Your task to perform on an android device: allow notifications from all sites in the chrome app Image 0: 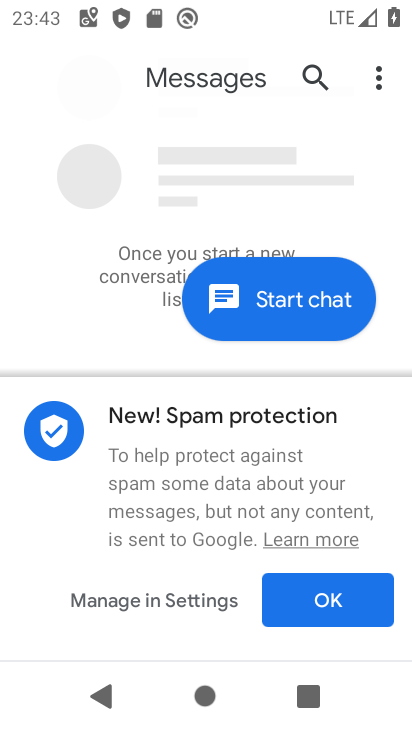
Step 0: press back button
Your task to perform on an android device: allow notifications from all sites in the chrome app Image 1: 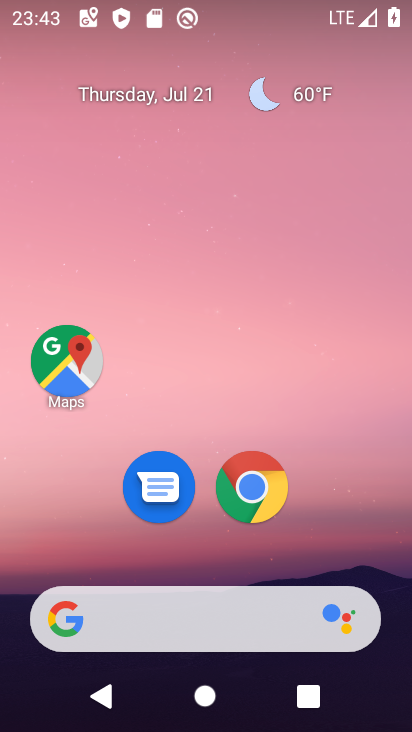
Step 1: click (273, 469)
Your task to perform on an android device: allow notifications from all sites in the chrome app Image 2: 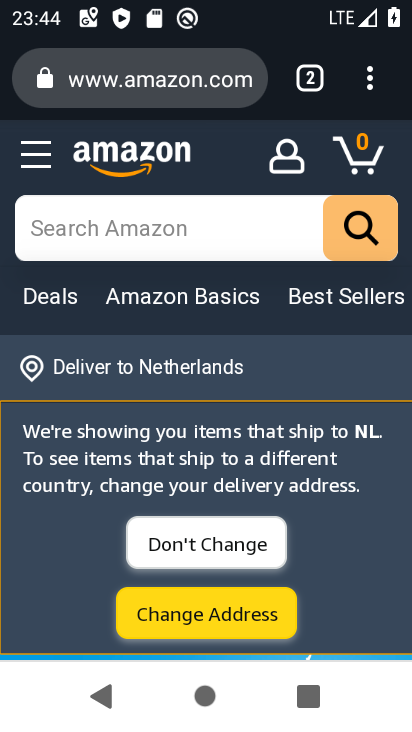
Step 2: drag from (366, 78) to (78, 539)
Your task to perform on an android device: allow notifications from all sites in the chrome app Image 3: 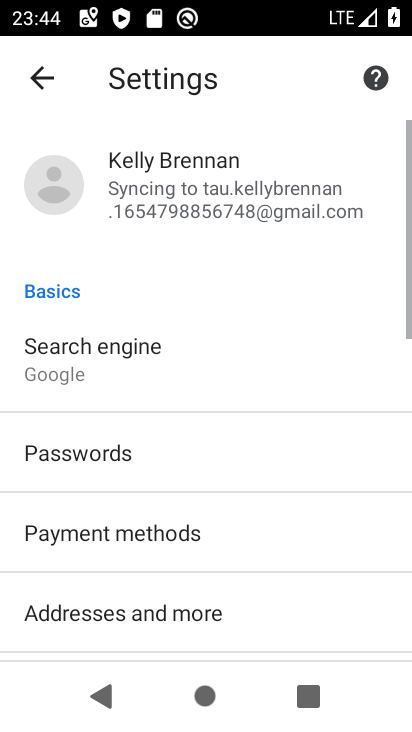
Step 3: drag from (141, 588) to (207, 111)
Your task to perform on an android device: allow notifications from all sites in the chrome app Image 4: 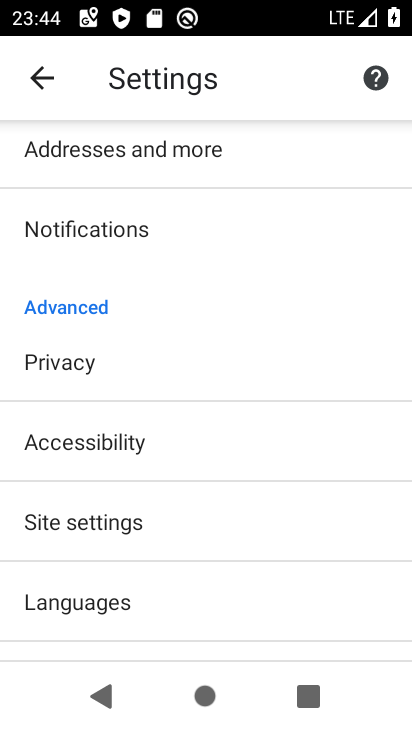
Step 4: click (96, 230)
Your task to perform on an android device: allow notifications from all sites in the chrome app Image 5: 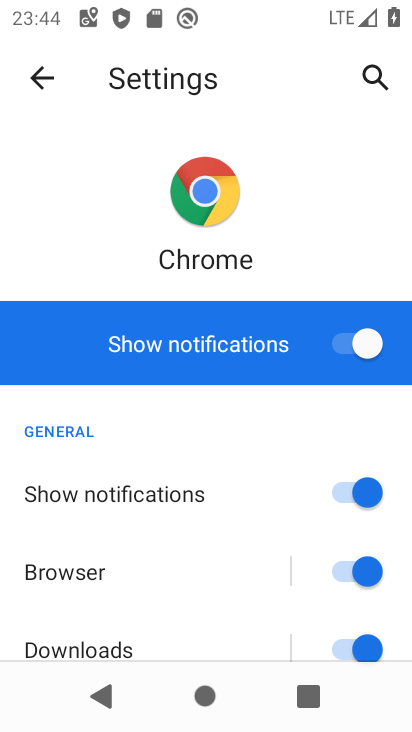
Step 5: task complete